Your task to perform on an android device: Open ESPN.com Image 0: 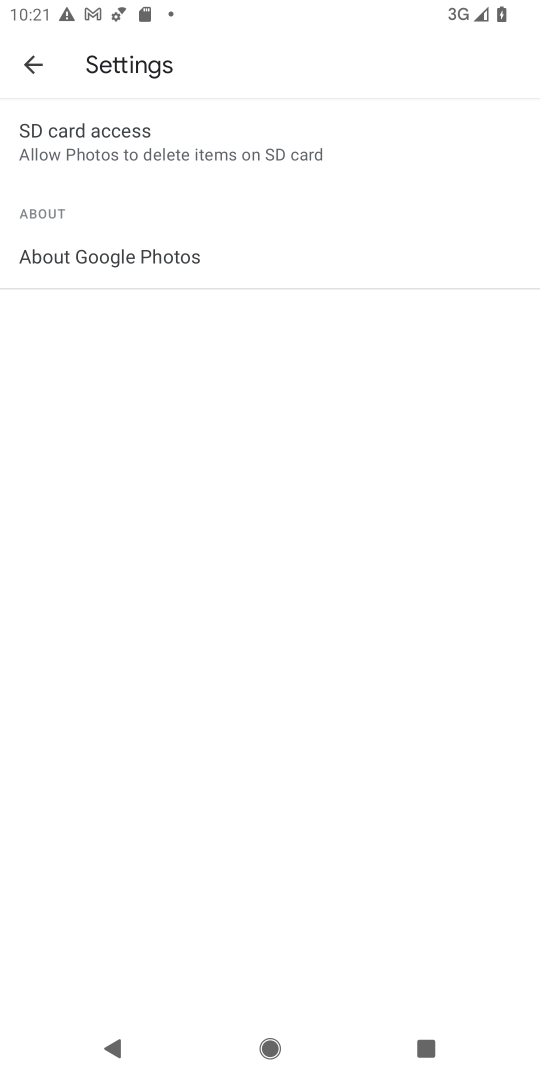
Step 0: press home button
Your task to perform on an android device: Open ESPN.com Image 1: 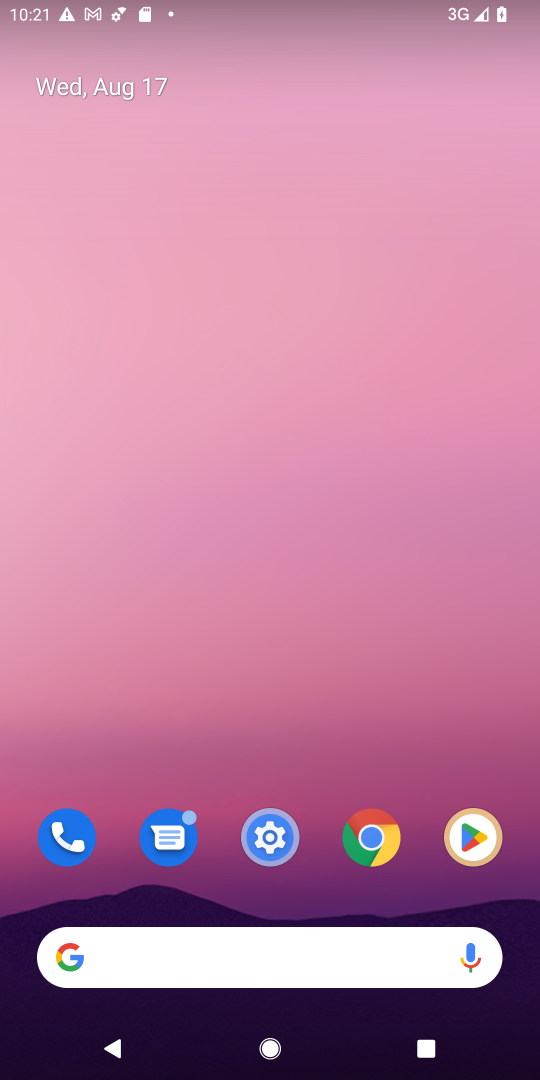
Step 1: click (371, 839)
Your task to perform on an android device: Open ESPN.com Image 2: 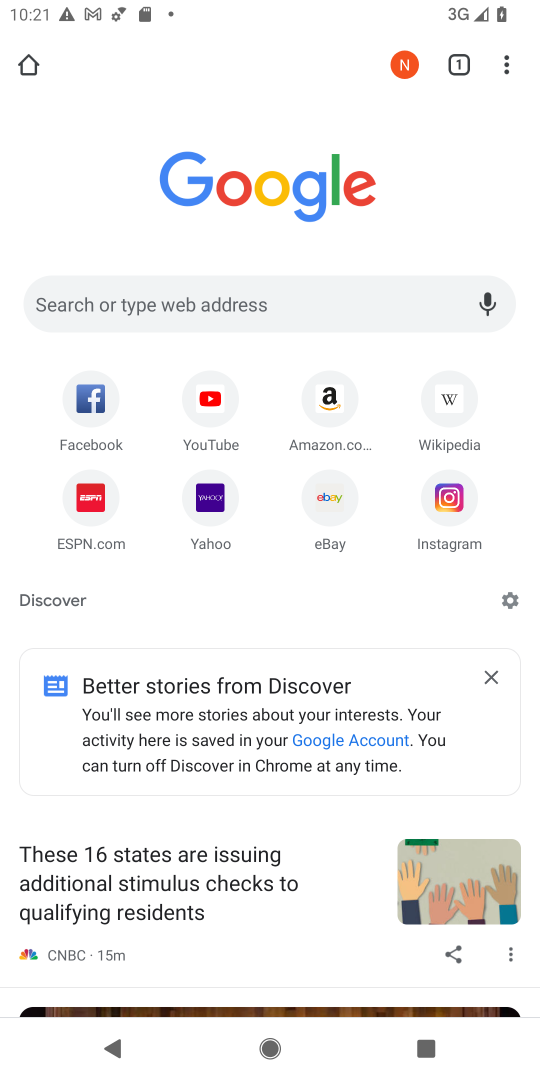
Step 2: click (89, 501)
Your task to perform on an android device: Open ESPN.com Image 3: 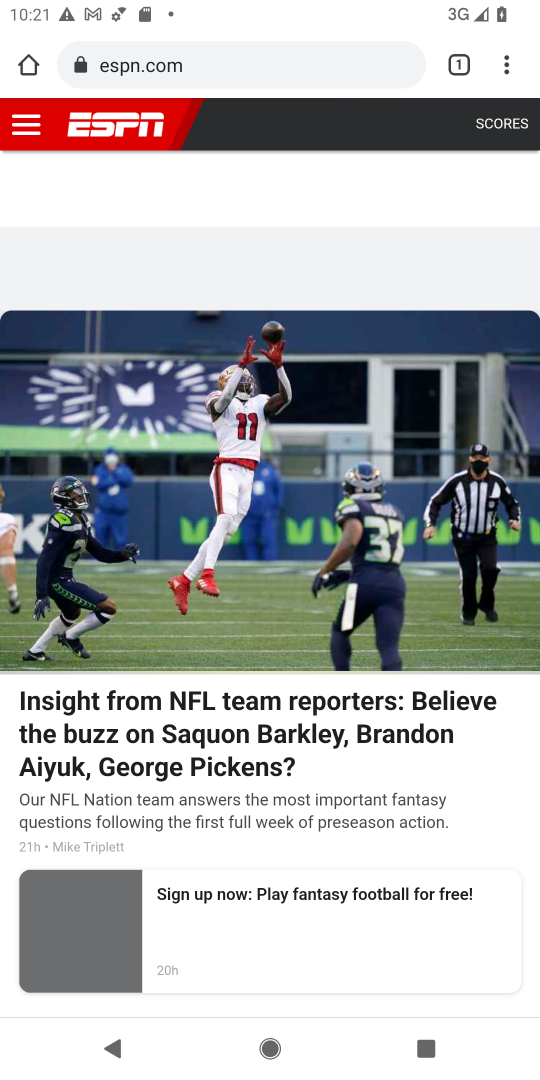
Step 3: task complete